Your task to perform on an android device: read, delete, or share a saved page in the chrome app Image 0: 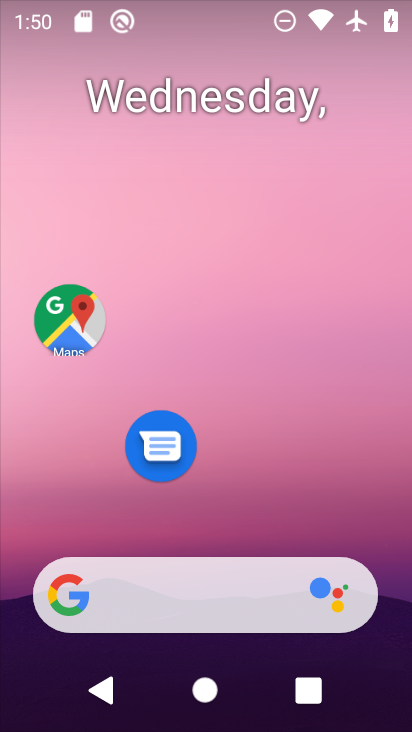
Step 0: drag from (303, 498) to (325, 153)
Your task to perform on an android device: read, delete, or share a saved page in the chrome app Image 1: 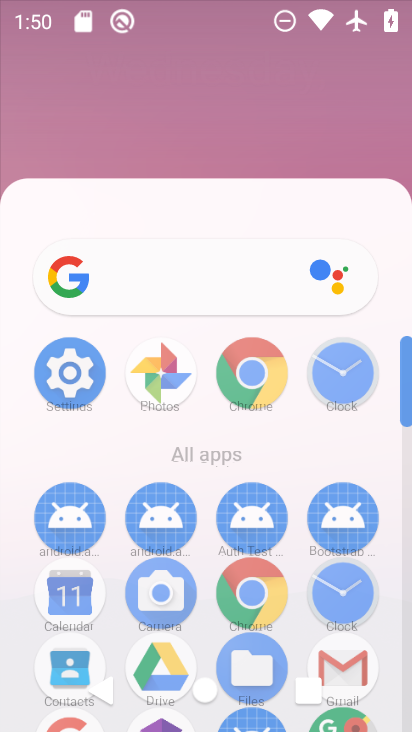
Step 1: click (325, 153)
Your task to perform on an android device: read, delete, or share a saved page in the chrome app Image 2: 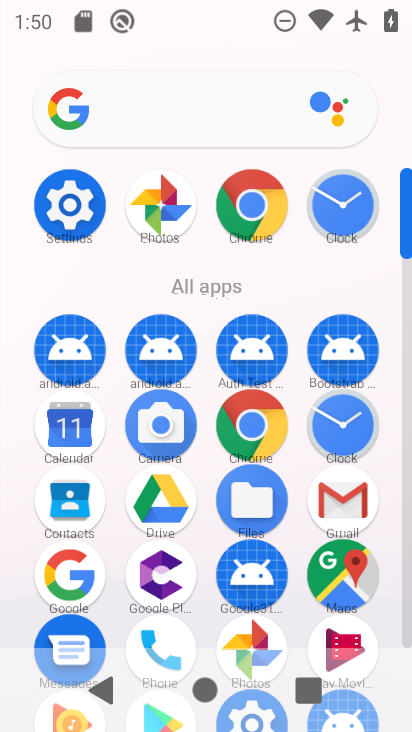
Step 2: click (255, 189)
Your task to perform on an android device: read, delete, or share a saved page in the chrome app Image 3: 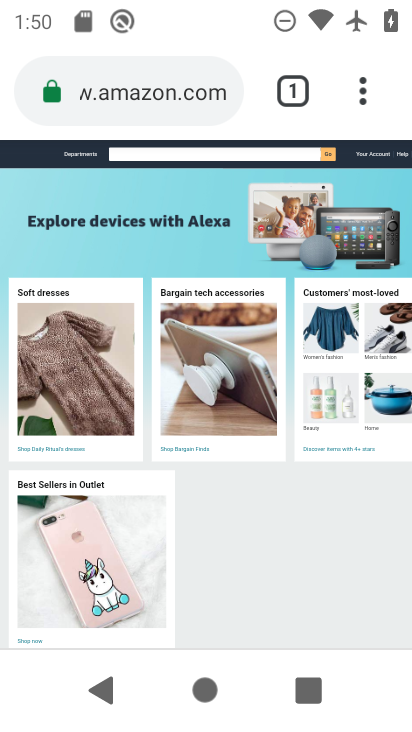
Step 3: click (375, 87)
Your task to perform on an android device: read, delete, or share a saved page in the chrome app Image 4: 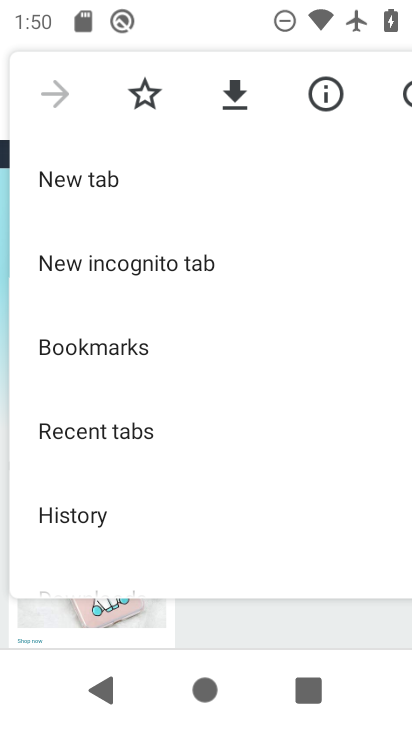
Step 4: drag from (170, 400) to (176, 247)
Your task to perform on an android device: read, delete, or share a saved page in the chrome app Image 5: 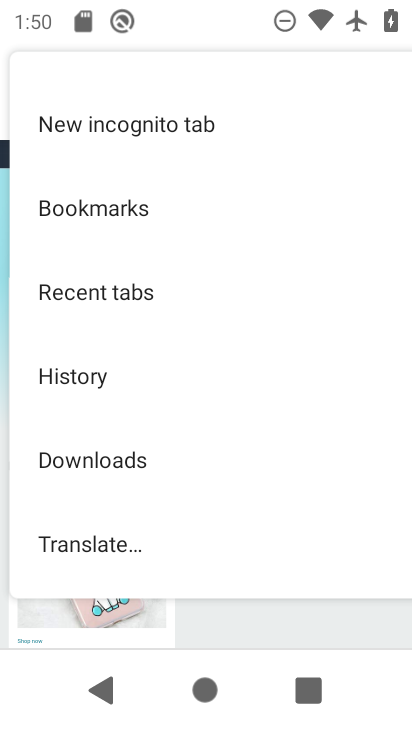
Step 5: click (140, 447)
Your task to perform on an android device: read, delete, or share a saved page in the chrome app Image 6: 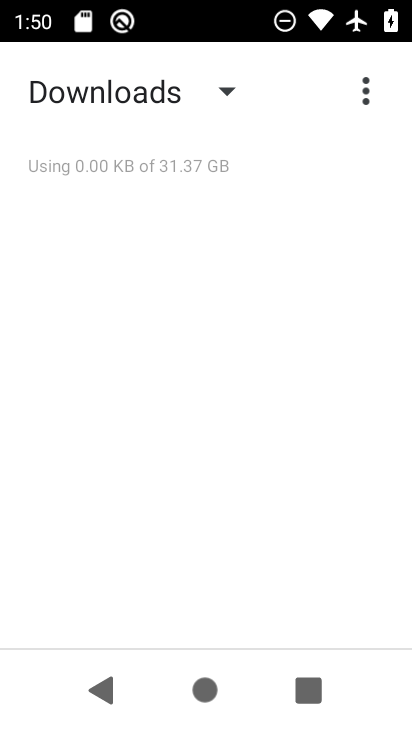
Step 6: task complete